Your task to perform on an android device: turn notification dots on Image 0: 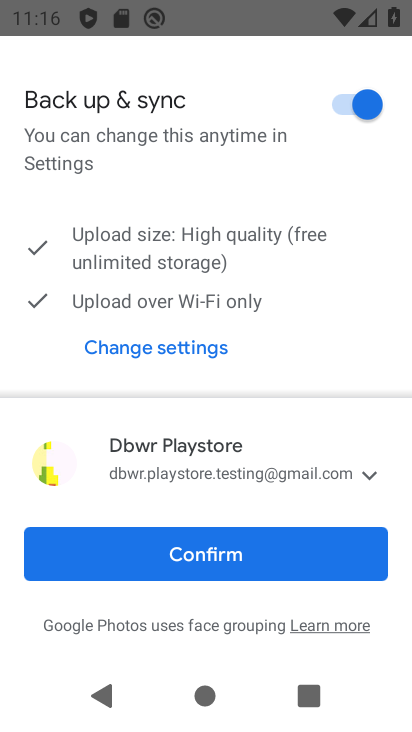
Step 0: press home button
Your task to perform on an android device: turn notification dots on Image 1: 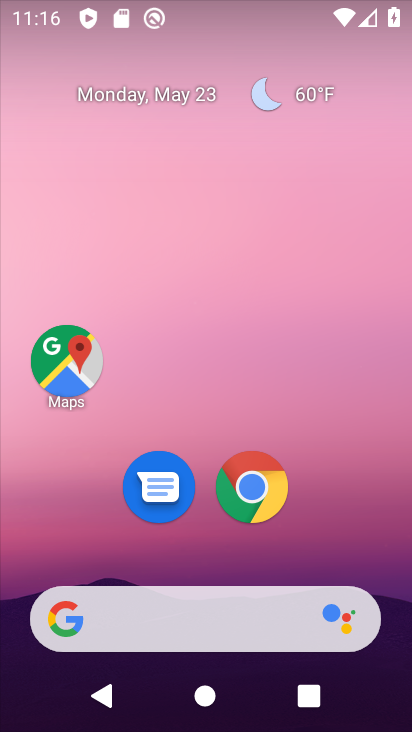
Step 1: drag from (63, 587) to (215, 70)
Your task to perform on an android device: turn notification dots on Image 2: 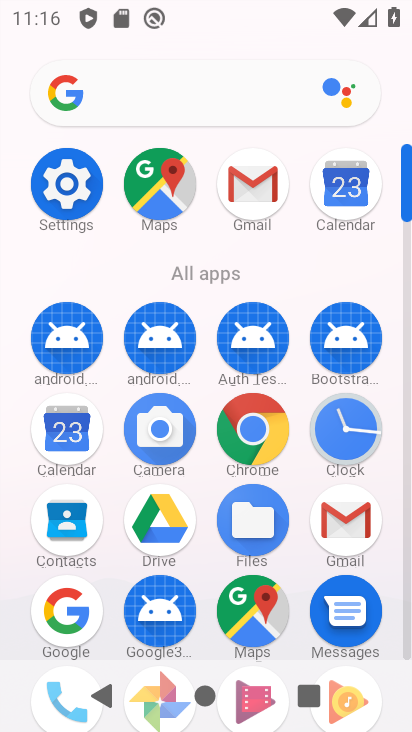
Step 2: drag from (111, 581) to (249, 270)
Your task to perform on an android device: turn notification dots on Image 3: 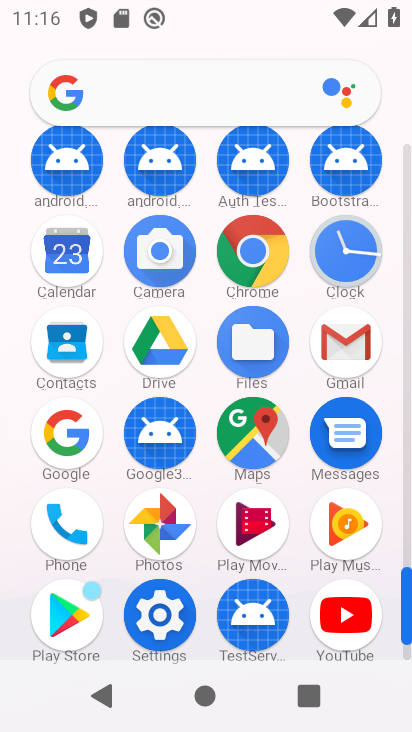
Step 3: click (171, 630)
Your task to perform on an android device: turn notification dots on Image 4: 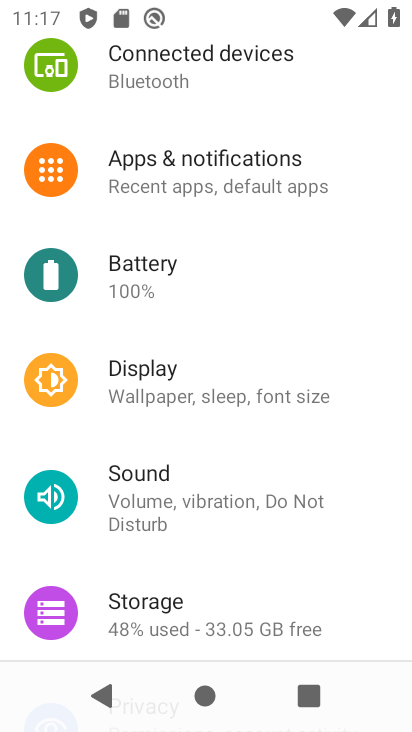
Step 4: click (213, 191)
Your task to perform on an android device: turn notification dots on Image 5: 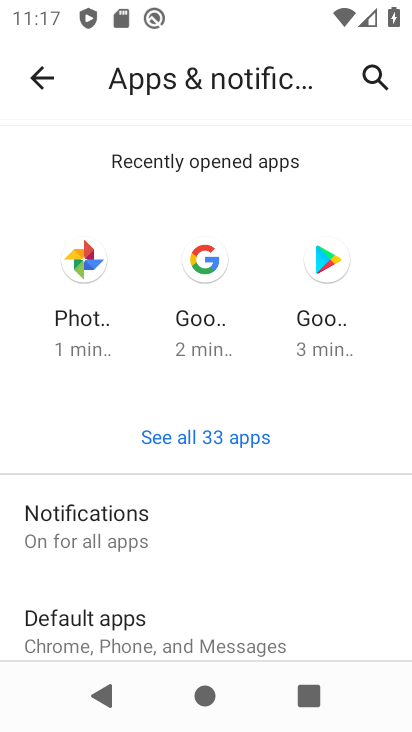
Step 5: click (201, 543)
Your task to perform on an android device: turn notification dots on Image 6: 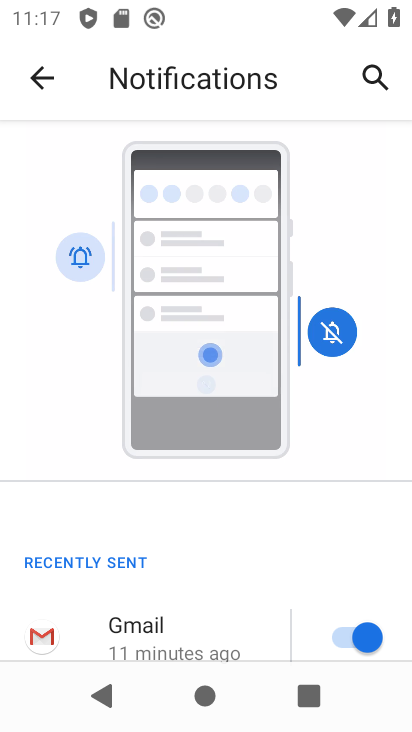
Step 6: drag from (172, 610) to (389, 78)
Your task to perform on an android device: turn notification dots on Image 7: 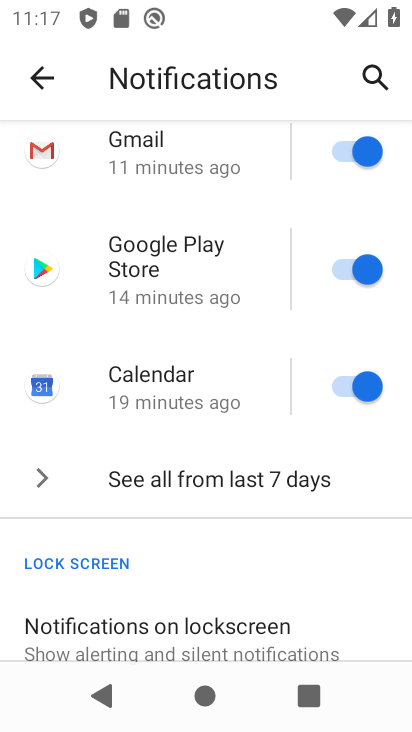
Step 7: drag from (195, 575) to (305, 160)
Your task to perform on an android device: turn notification dots on Image 8: 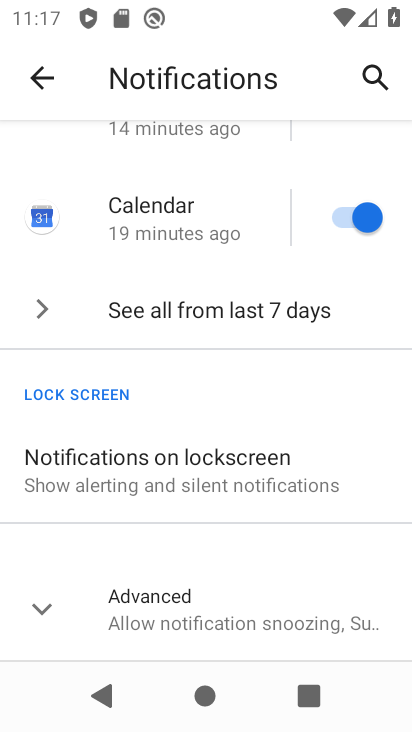
Step 8: drag from (135, 566) to (220, 313)
Your task to perform on an android device: turn notification dots on Image 9: 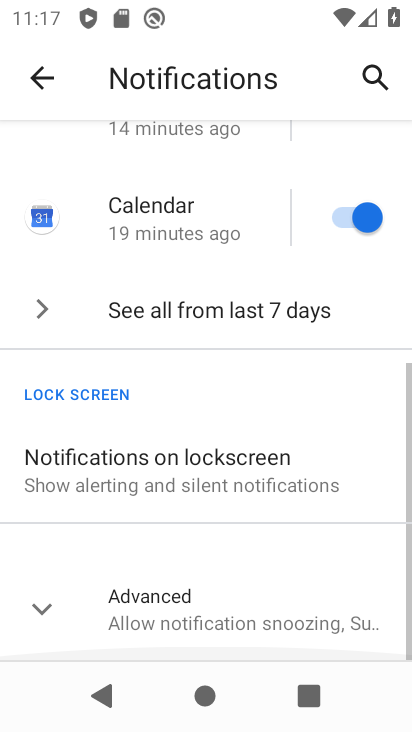
Step 9: click (269, 616)
Your task to perform on an android device: turn notification dots on Image 10: 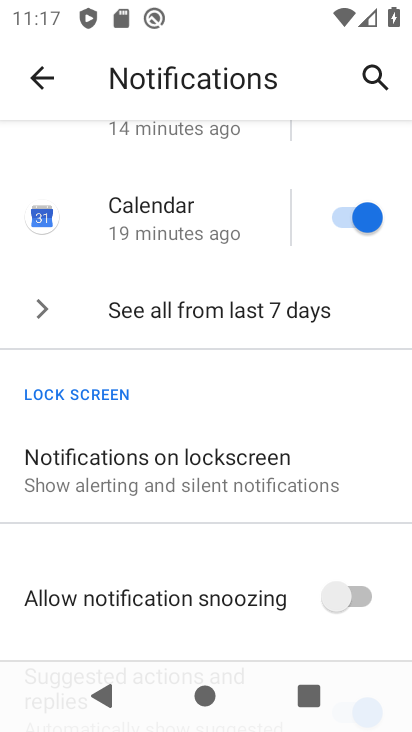
Step 10: task complete